Your task to perform on an android device: Open calendar and show me the third week of next month Image 0: 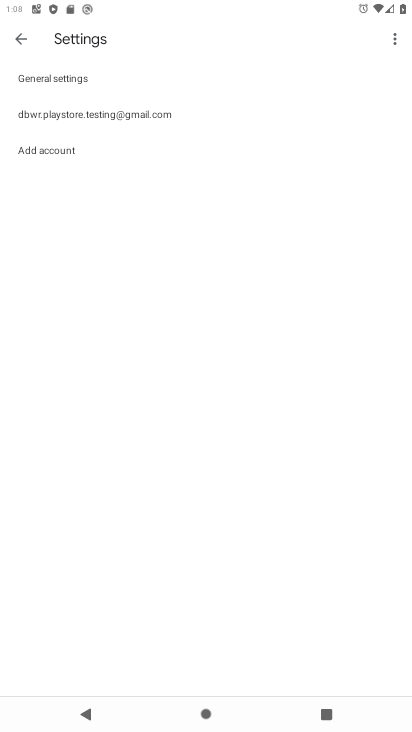
Step 0: press home button
Your task to perform on an android device: Open calendar and show me the third week of next month Image 1: 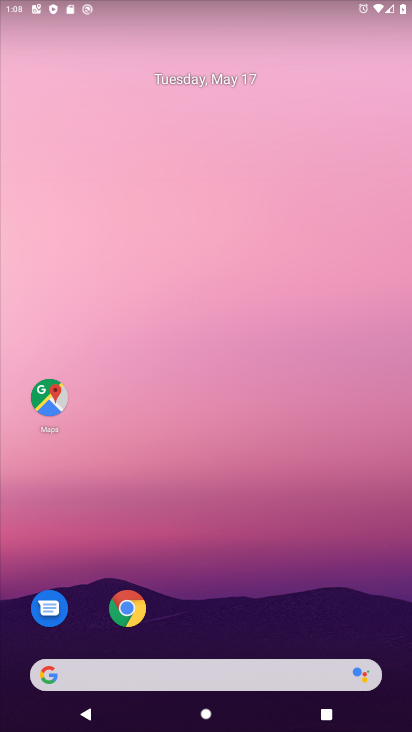
Step 1: click (198, 77)
Your task to perform on an android device: Open calendar and show me the third week of next month Image 2: 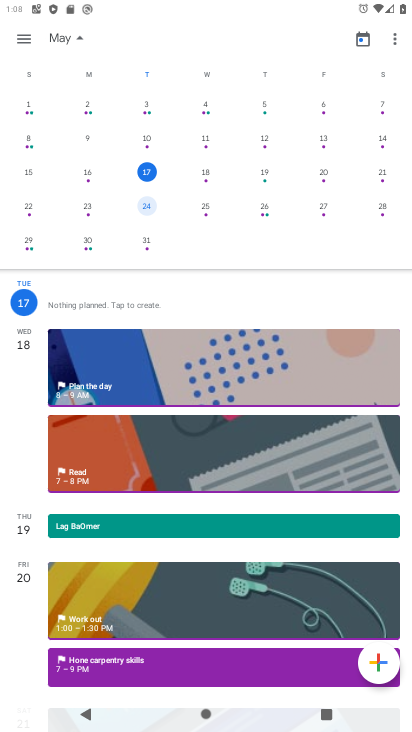
Step 2: drag from (315, 208) to (37, 186)
Your task to perform on an android device: Open calendar and show me the third week of next month Image 3: 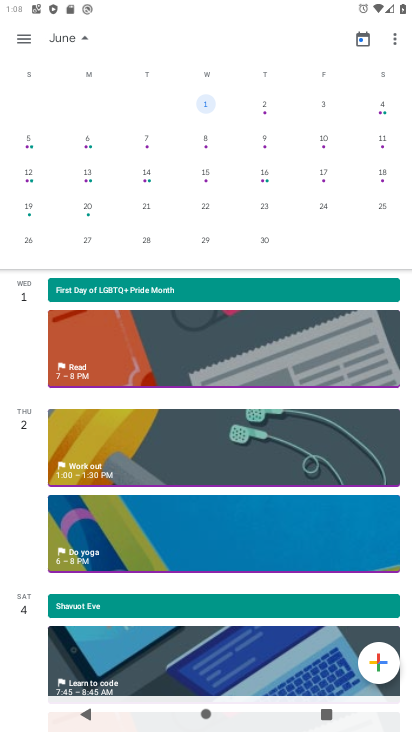
Step 3: click (213, 181)
Your task to perform on an android device: Open calendar and show me the third week of next month Image 4: 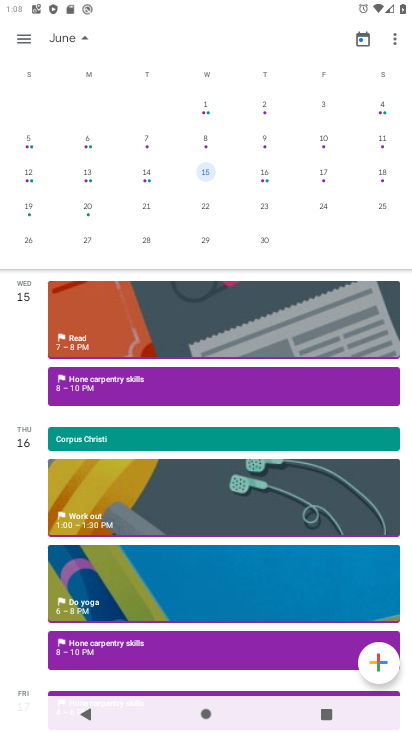
Step 4: task complete